Your task to perform on an android device: turn on the 12-hour format for clock Image 0: 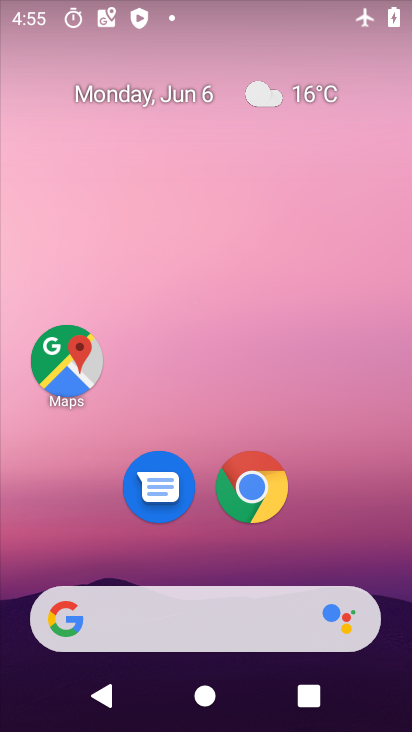
Step 0: drag from (334, 504) to (176, 57)
Your task to perform on an android device: turn on the 12-hour format for clock Image 1: 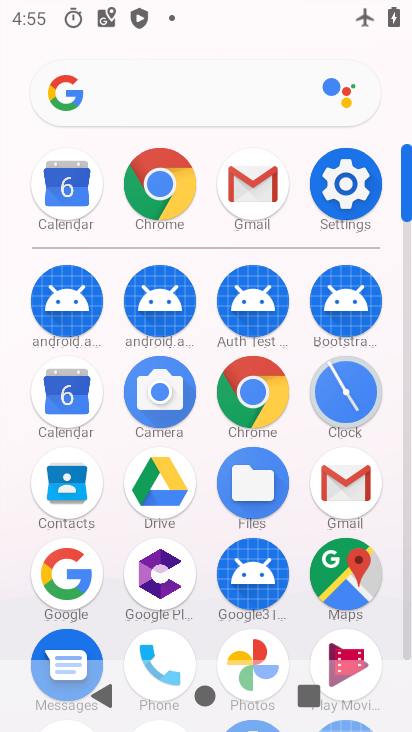
Step 1: click (347, 415)
Your task to perform on an android device: turn on the 12-hour format for clock Image 2: 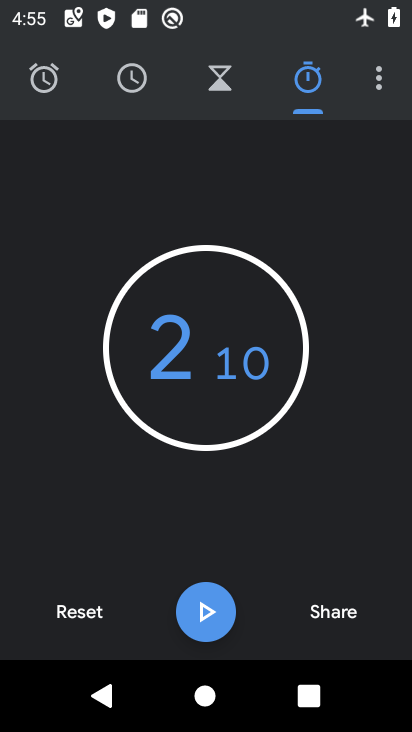
Step 2: drag from (373, 74) to (248, 176)
Your task to perform on an android device: turn on the 12-hour format for clock Image 3: 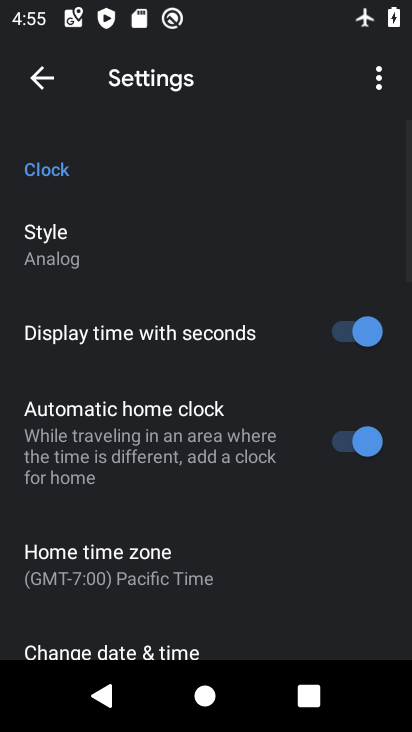
Step 3: drag from (260, 565) to (264, 137)
Your task to perform on an android device: turn on the 12-hour format for clock Image 4: 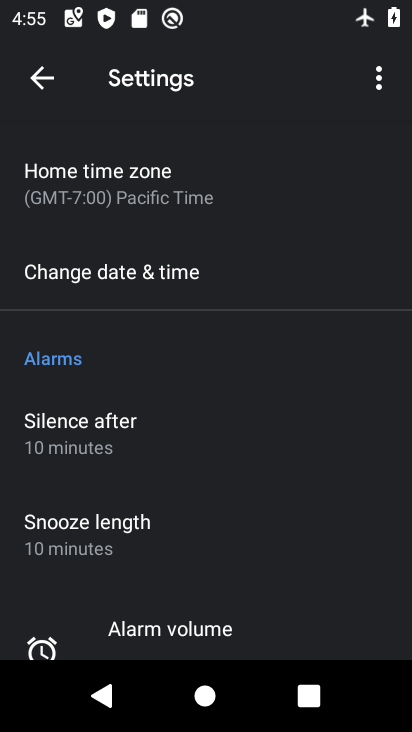
Step 4: click (188, 272)
Your task to perform on an android device: turn on the 12-hour format for clock Image 5: 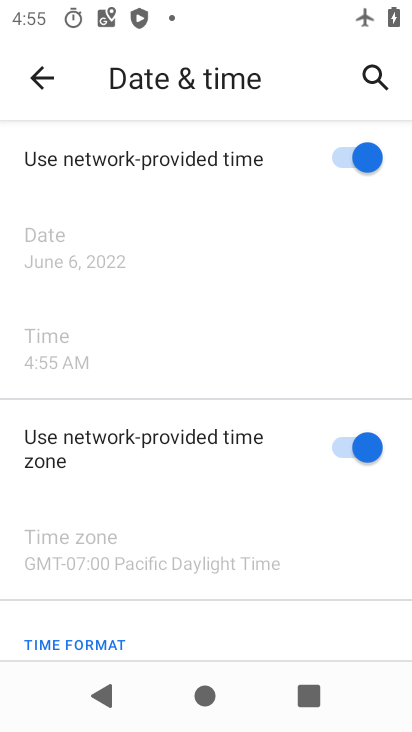
Step 5: task complete